Your task to perform on an android device: toggle priority inbox in the gmail app Image 0: 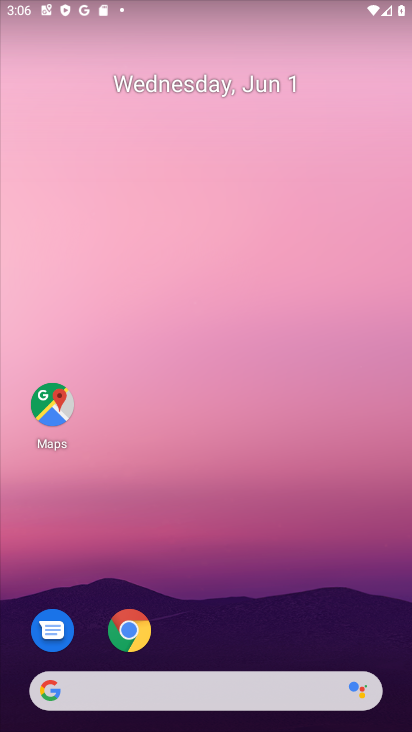
Step 0: drag from (242, 583) to (266, 157)
Your task to perform on an android device: toggle priority inbox in the gmail app Image 1: 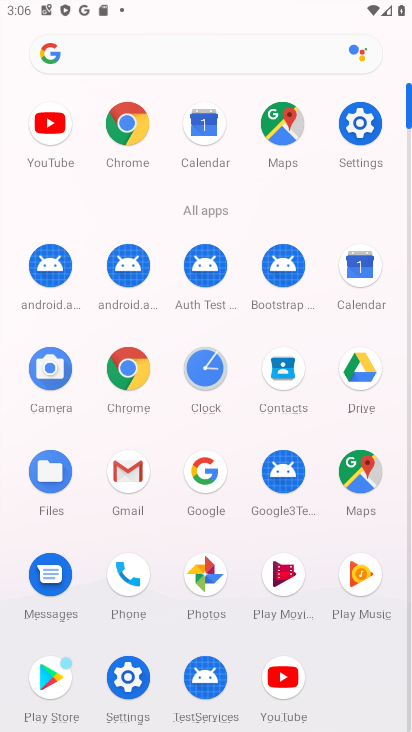
Step 1: click (124, 464)
Your task to perform on an android device: toggle priority inbox in the gmail app Image 2: 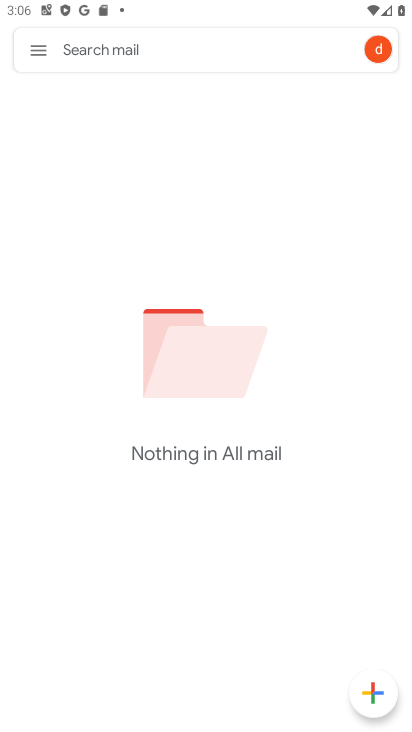
Step 2: click (41, 46)
Your task to perform on an android device: toggle priority inbox in the gmail app Image 3: 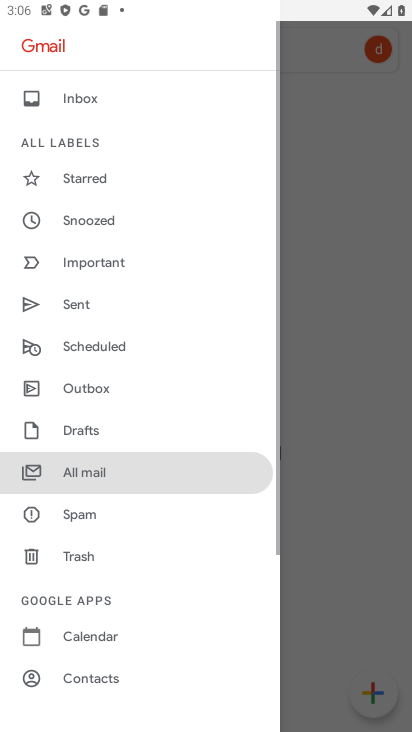
Step 3: drag from (95, 617) to (164, 142)
Your task to perform on an android device: toggle priority inbox in the gmail app Image 4: 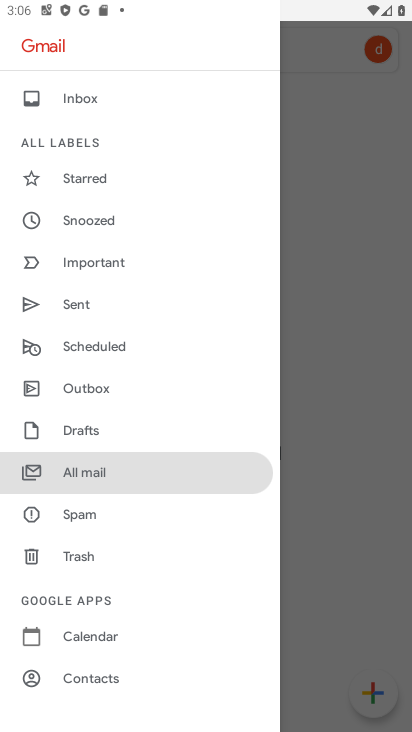
Step 4: drag from (92, 653) to (128, 185)
Your task to perform on an android device: toggle priority inbox in the gmail app Image 5: 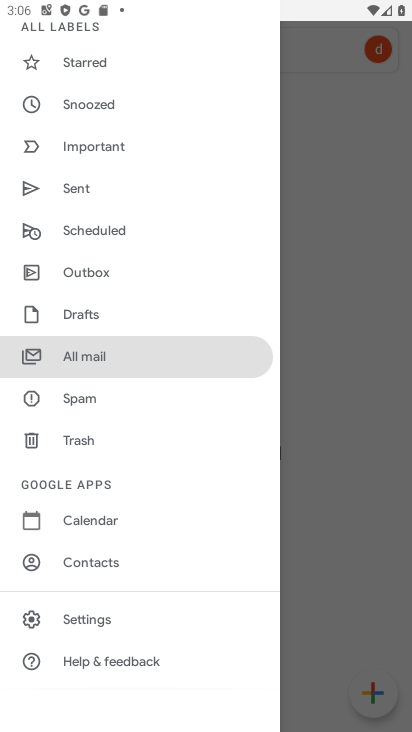
Step 5: click (90, 625)
Your task to perform on an android device: toggle priority inbox in the gmail app Image 6: 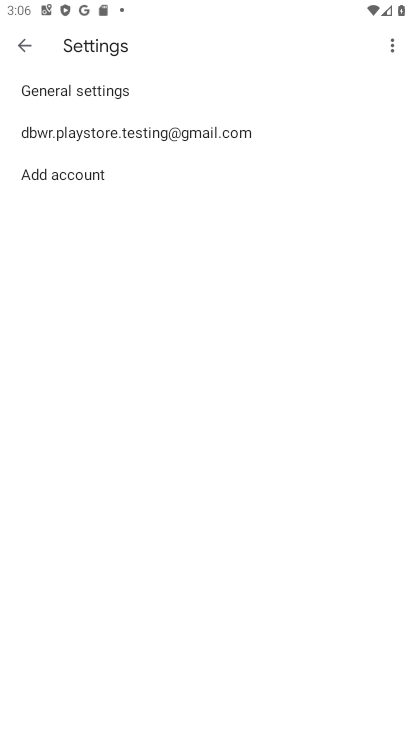
Step 6: click (94, 127)
Your task to perform on an android device: toggle priority inbox in the gmail app Image 7: 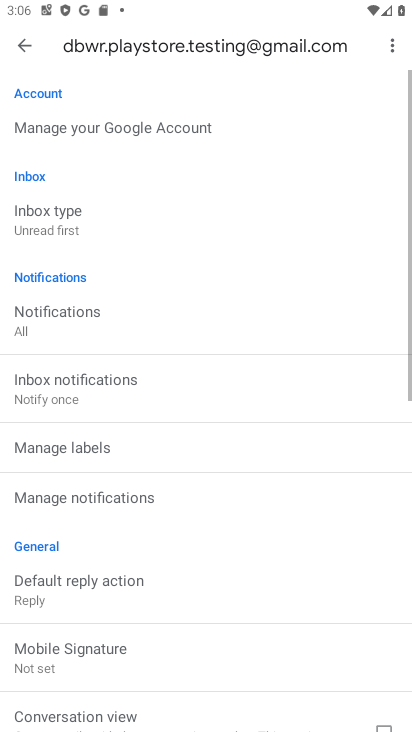
Step 7: click (75, 222)
Your task to perform on an android device: toggle priority inbox in the gmail app Image 8: 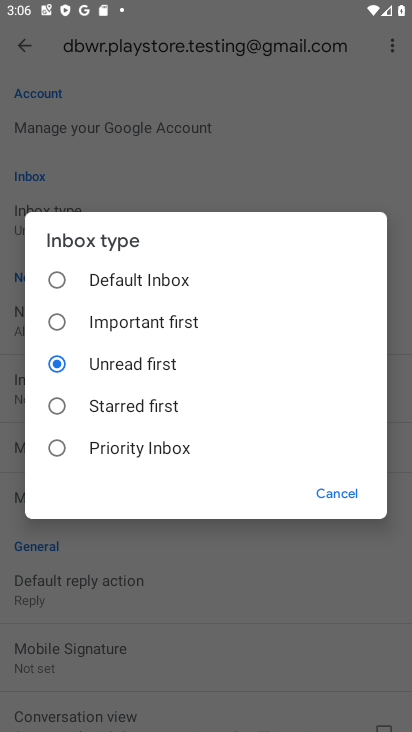
Step 8: click (58, 449)
Your task to perform on an android device: toggle priority inbox in the gmail app Image 9: 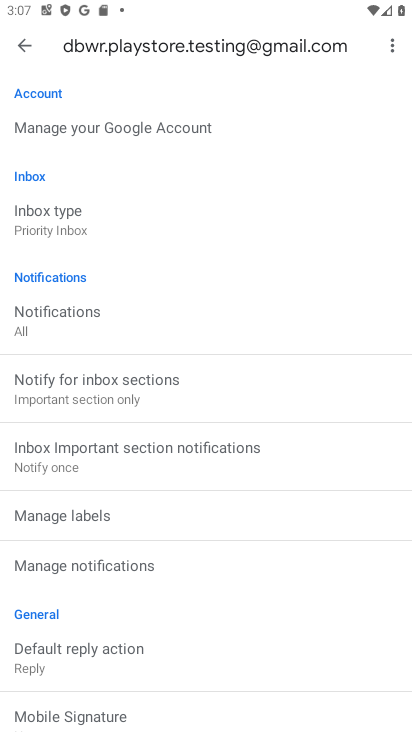
Step 9: task complete